Your task to perform on an android device: Open Chrome and go to settings Image 0: 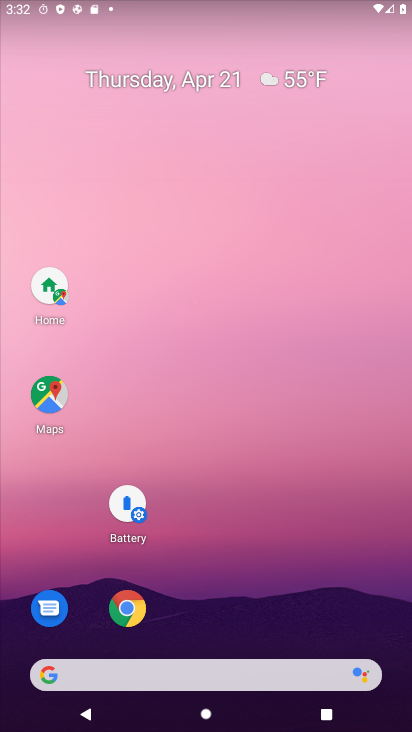
Step 0: drag from (276, 552) to (247, 29)
Your task to perform on an android device: Open Chrome and go to settings Image 1: 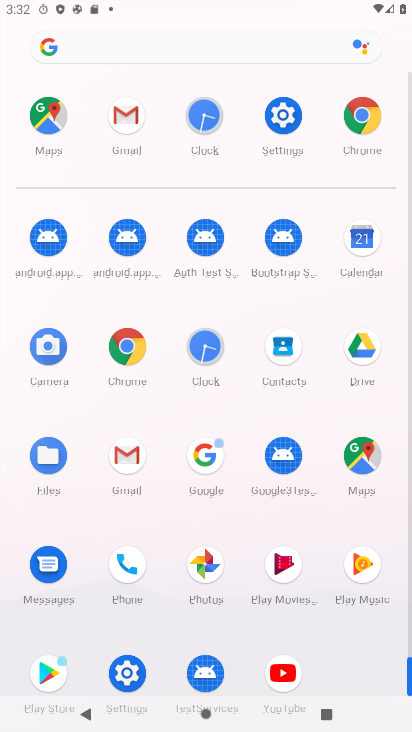
Step 1: click (349, 117)
Your task to perform on an android device: Open Chrome and go to settings Image 2: 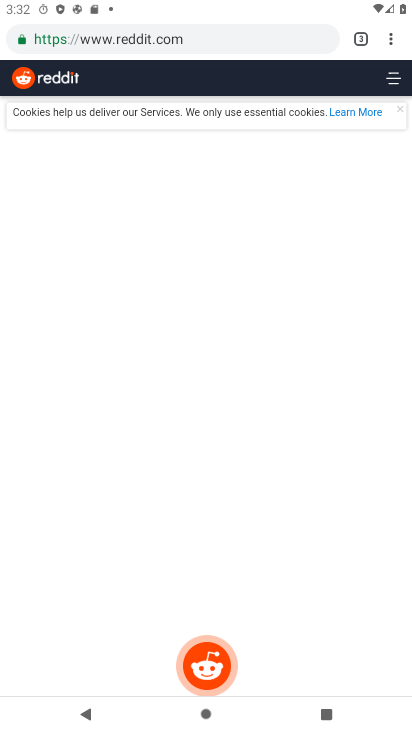
Step 2: task complete